Your task to perform on an android device: Open ESPN.com Image 0: 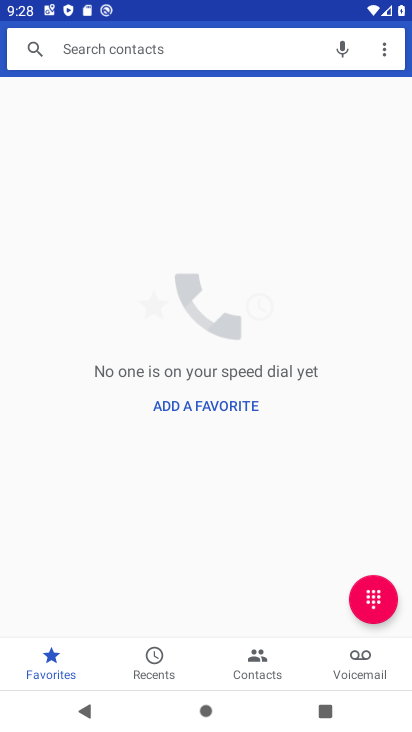
Step 0: press home button
Your task to perform on an android device: Open ESPN.com Image 1: 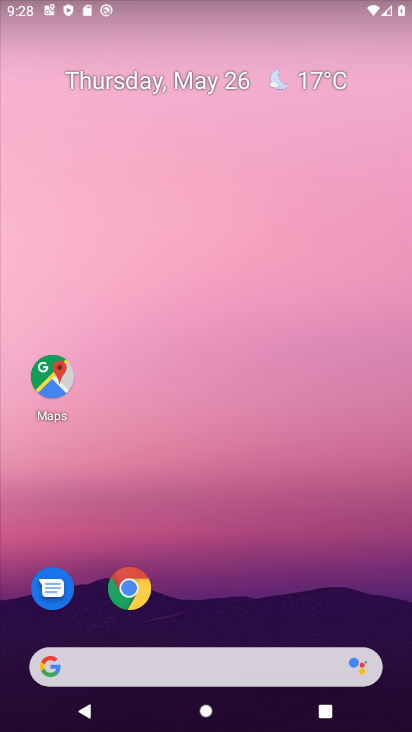
Step 1: click (134, 588)
Your task to perform on an android device: Open ESPN.com Image 2: 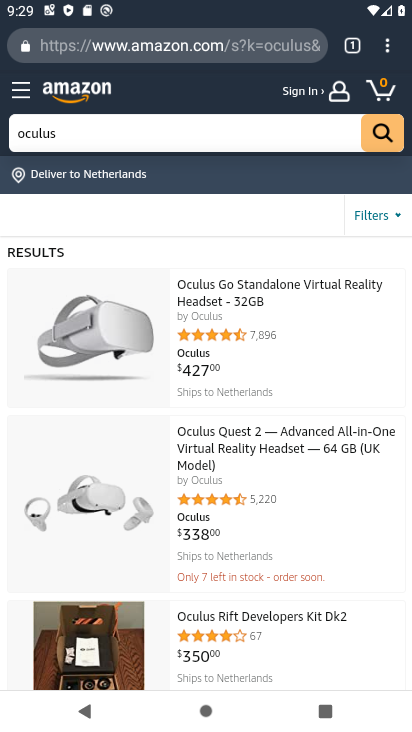
Step 2: click (254, 54)
Your task to perform on an android device: Open ESPN.com Image 3: 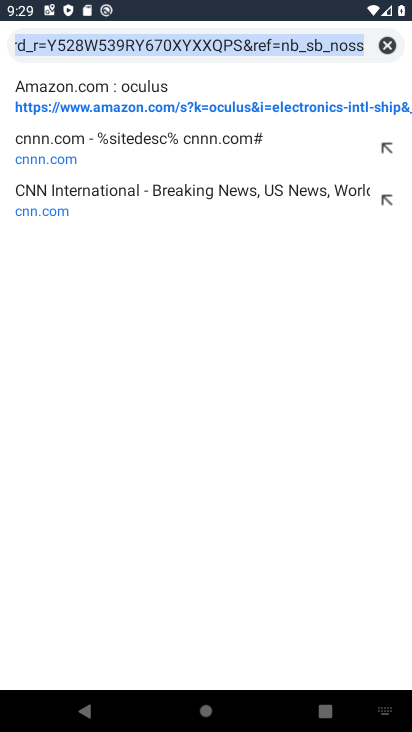
Step 3: click (384, 42)
Your task to perform on an android device: Open ESPN.com Image 4: 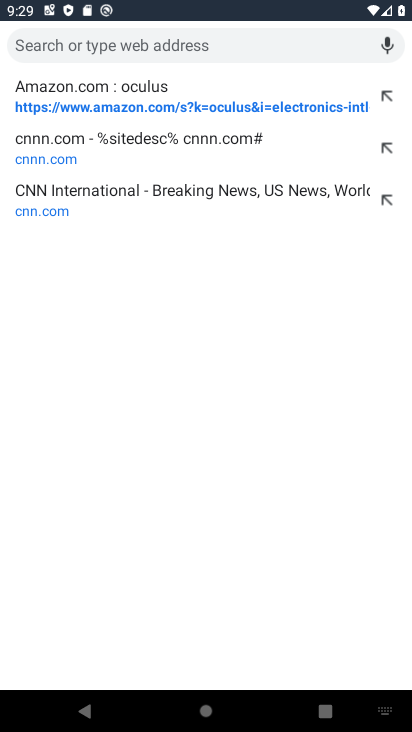
Step 4: type "espn.com"
Your task to perform on an android device: Open ESPN.com Image 5: 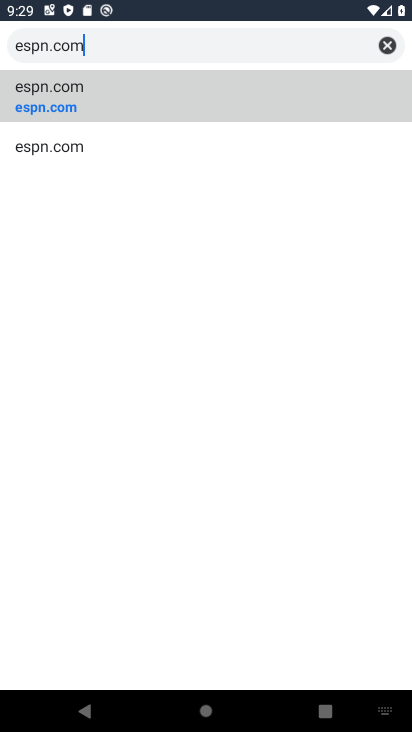
Step 5: click (51, 90)
Your task to perform on an android device: Open ESPN.com Image 6: 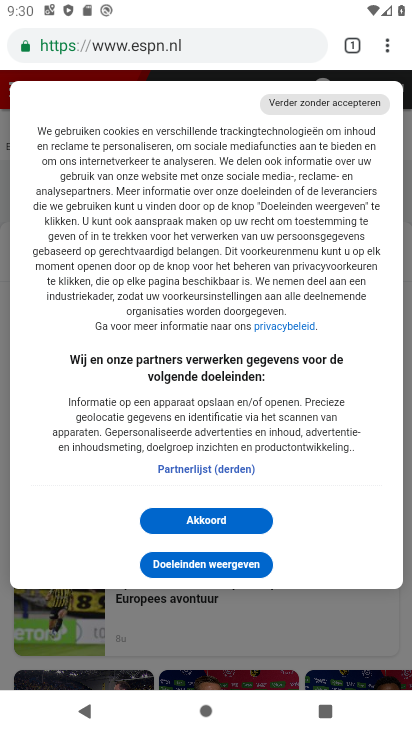
Step 6: click (204, 514)
Your task to perform on an android device: Open ESPN.com Image 7: 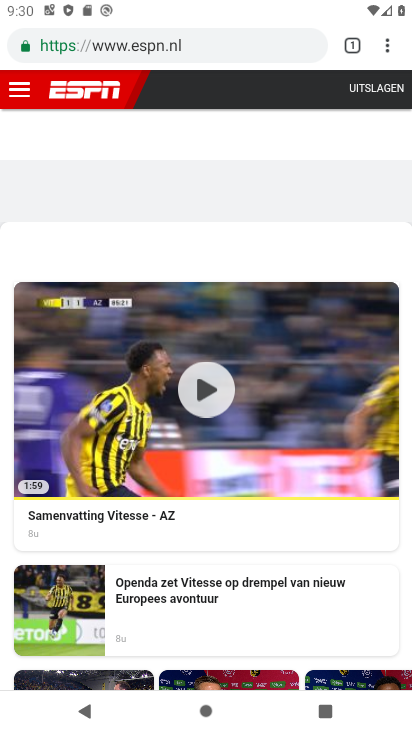
Step 7: task complete